Your task to perform on an android device: Open display settings Image 0: 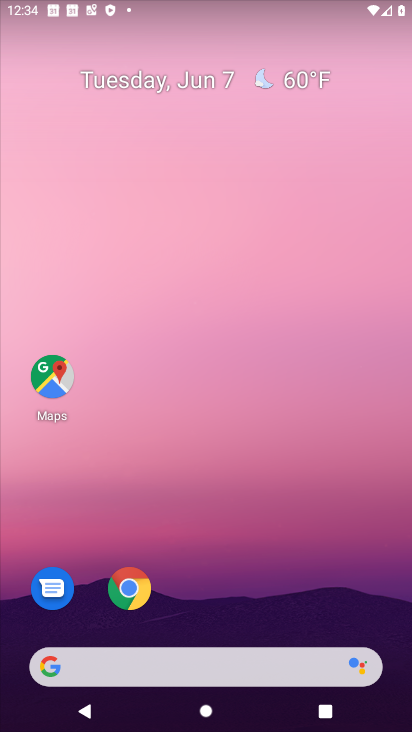
Step 0: drag from (257, 565) to (260, 0)
Your task to perform on an android device: Open display settings Image 1: 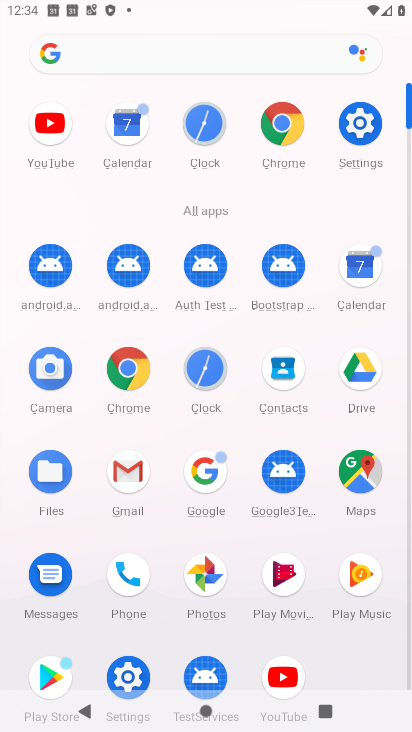
Step 1: click (352, 181)
Your task to perform on an android device: Open display settings Image 2: 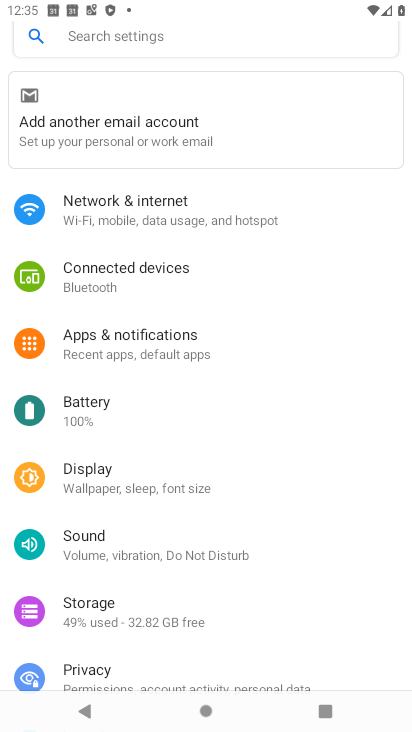
Step 2: click (103, 477)
Your task to perform on an android device: Open display settings Image 3: 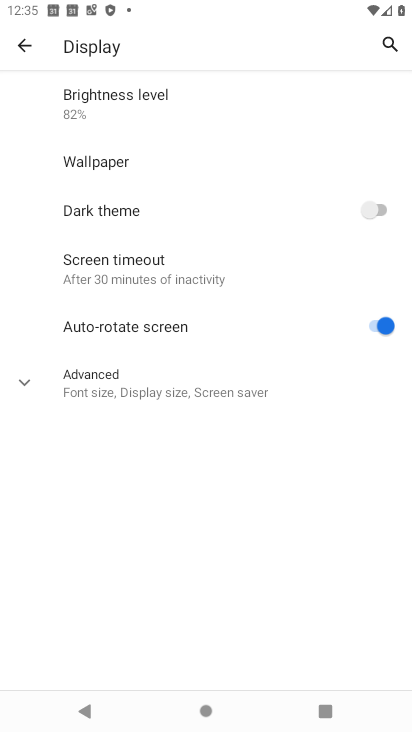
Step 3: task complete